Your task to perform on an android device: check android version Image 0: 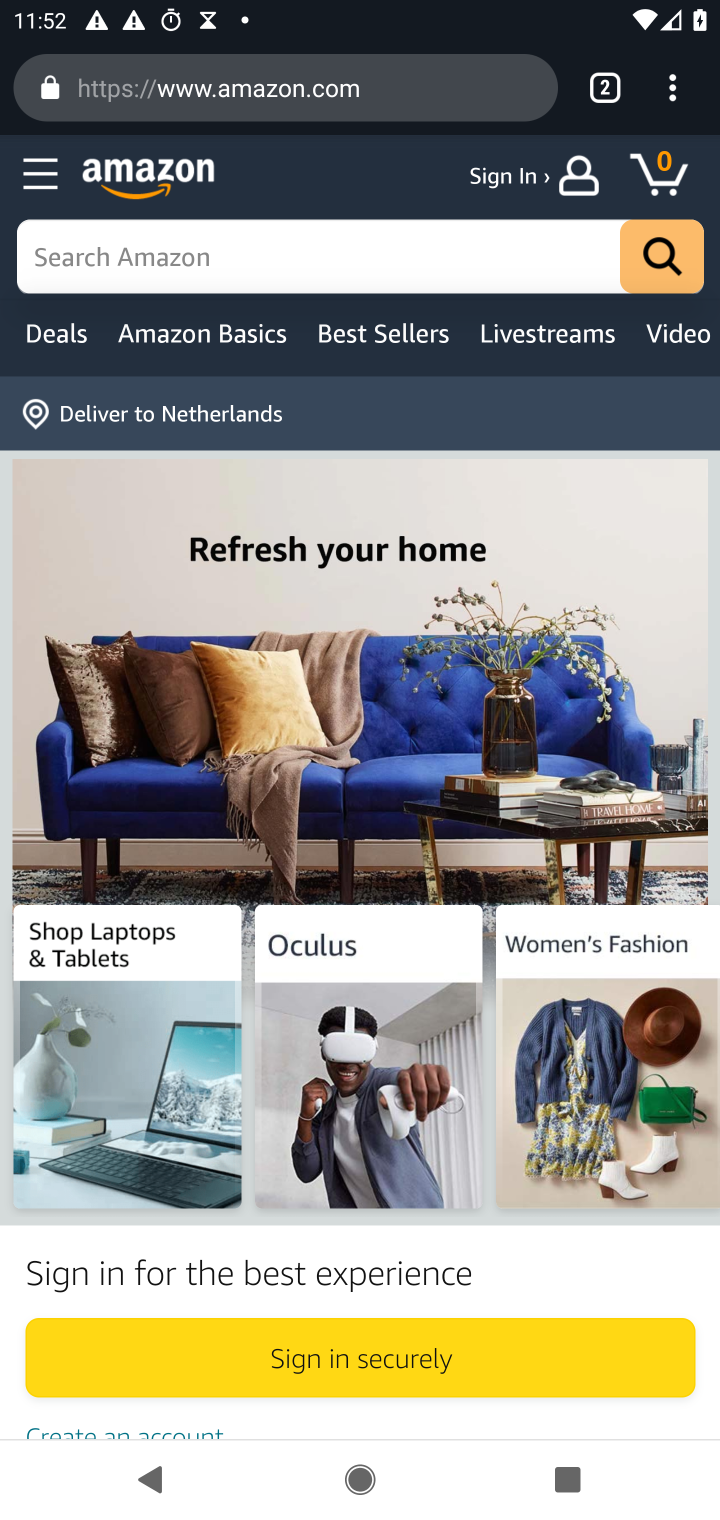
Step 0: press home button
Your task to perform on an android device: check android version Image 1: 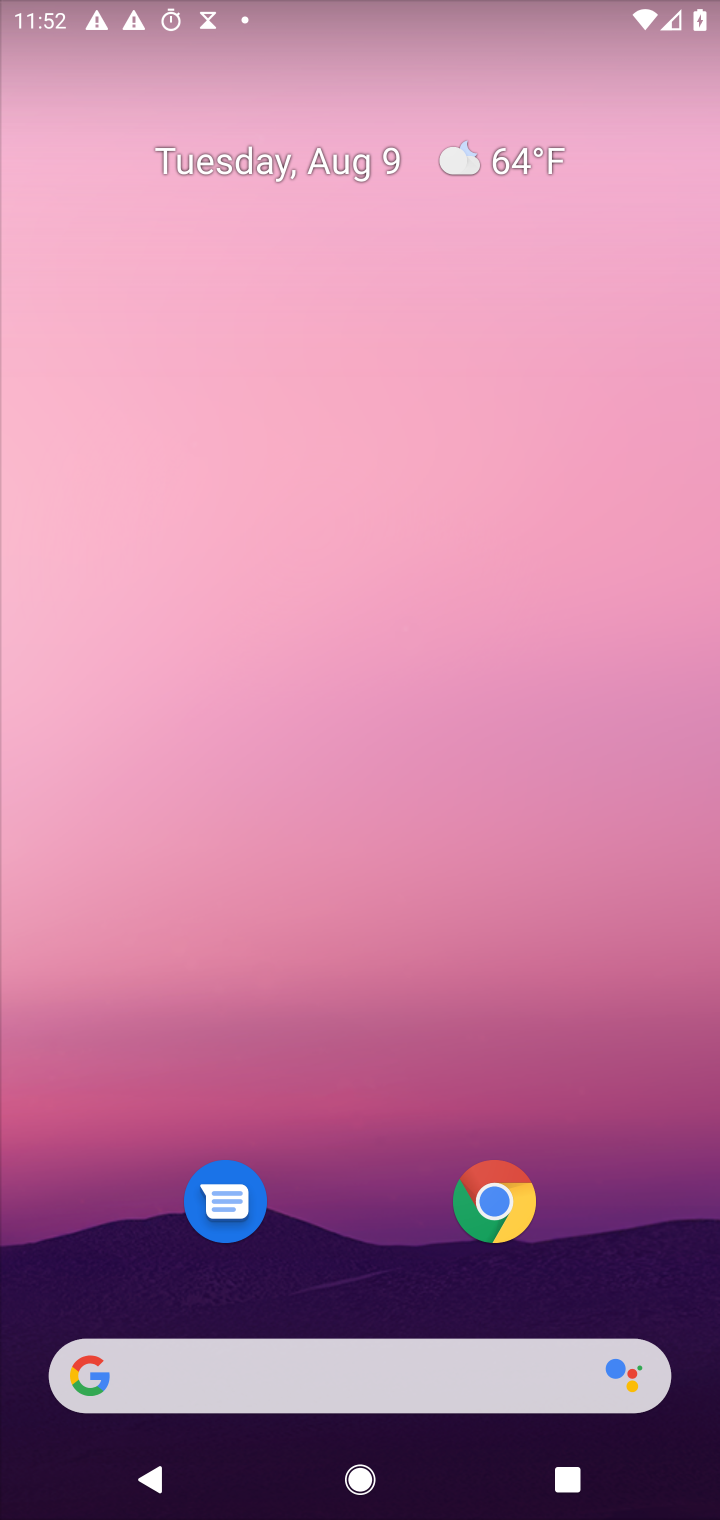
Step 1: drag from (382, 1229) to (362, 206)
Your task to perform on an android device: check android version Image 2: 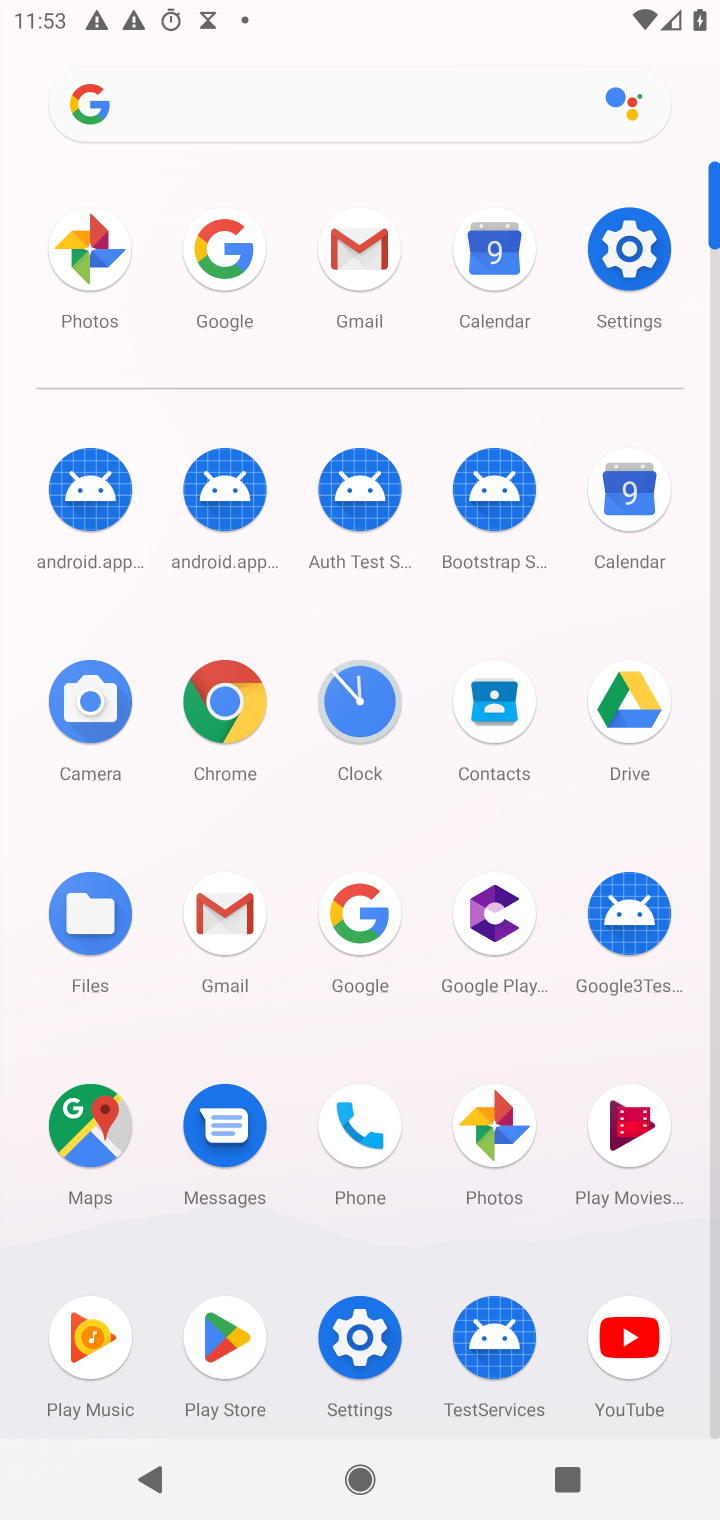
Step 2: click (631, 237)
Your task to perform on an android device: check android version Image 3: 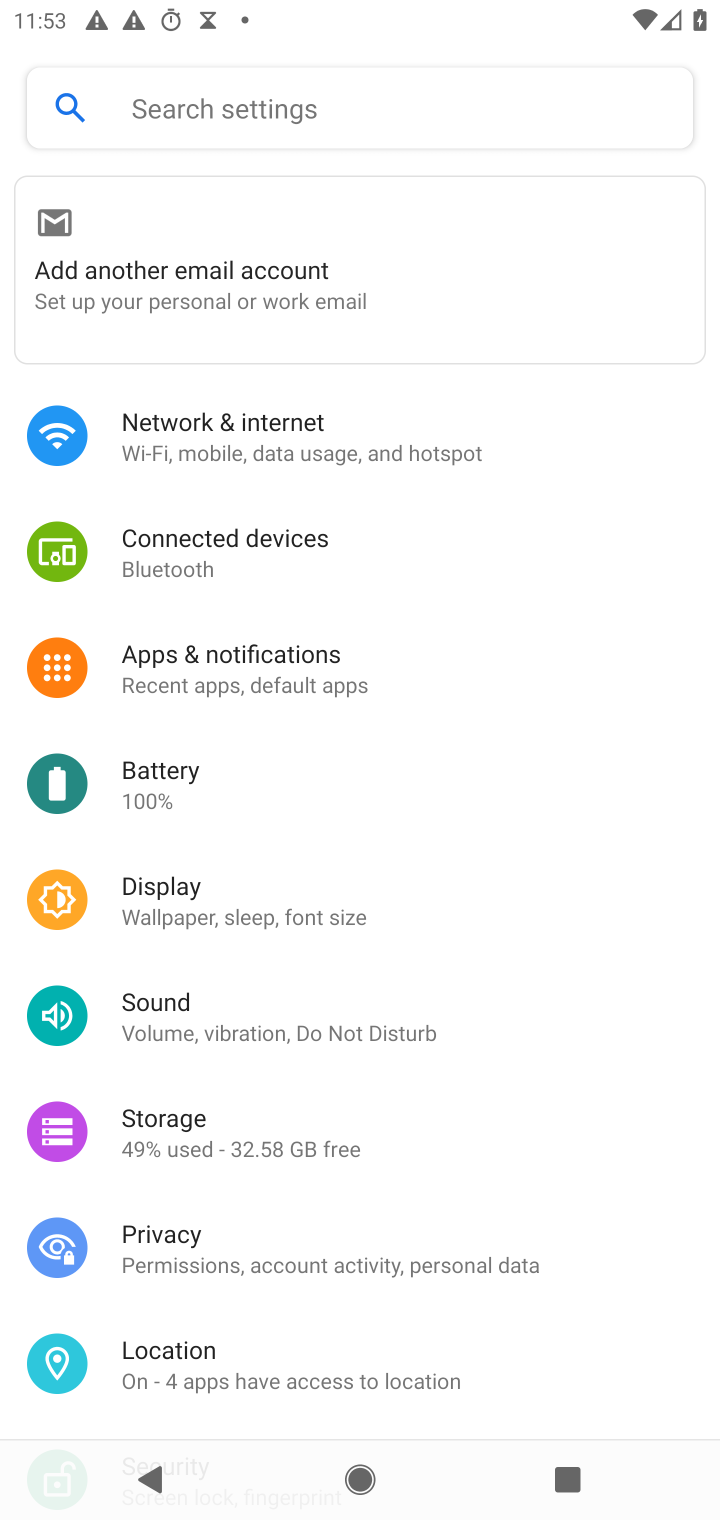
Step 3: drag from (397, 1210) to (411, 179)
Your task to perform on an android device: check android version Image 4: 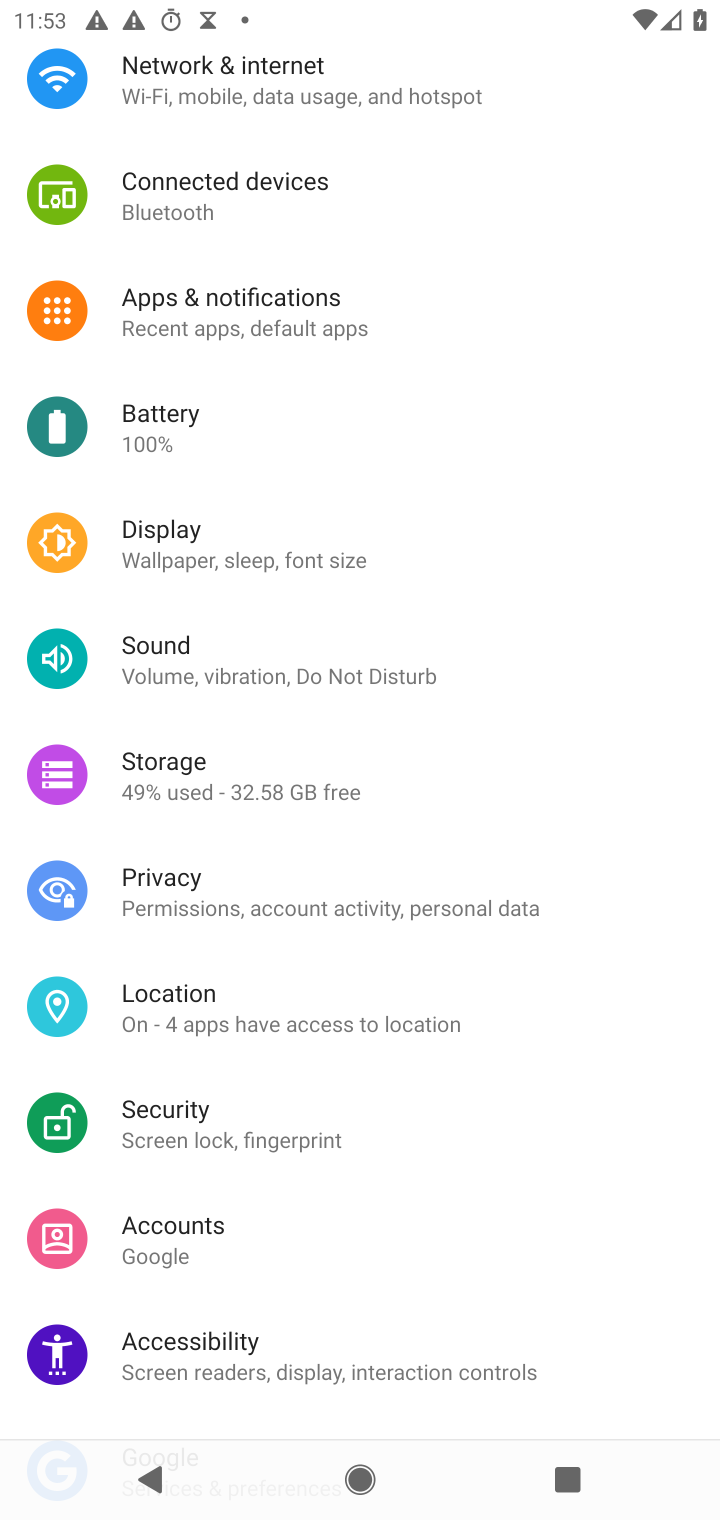
Step 4: drag from (290, 1293) to (432, 120)
Your task to perform on an android device: check android version Image 5: 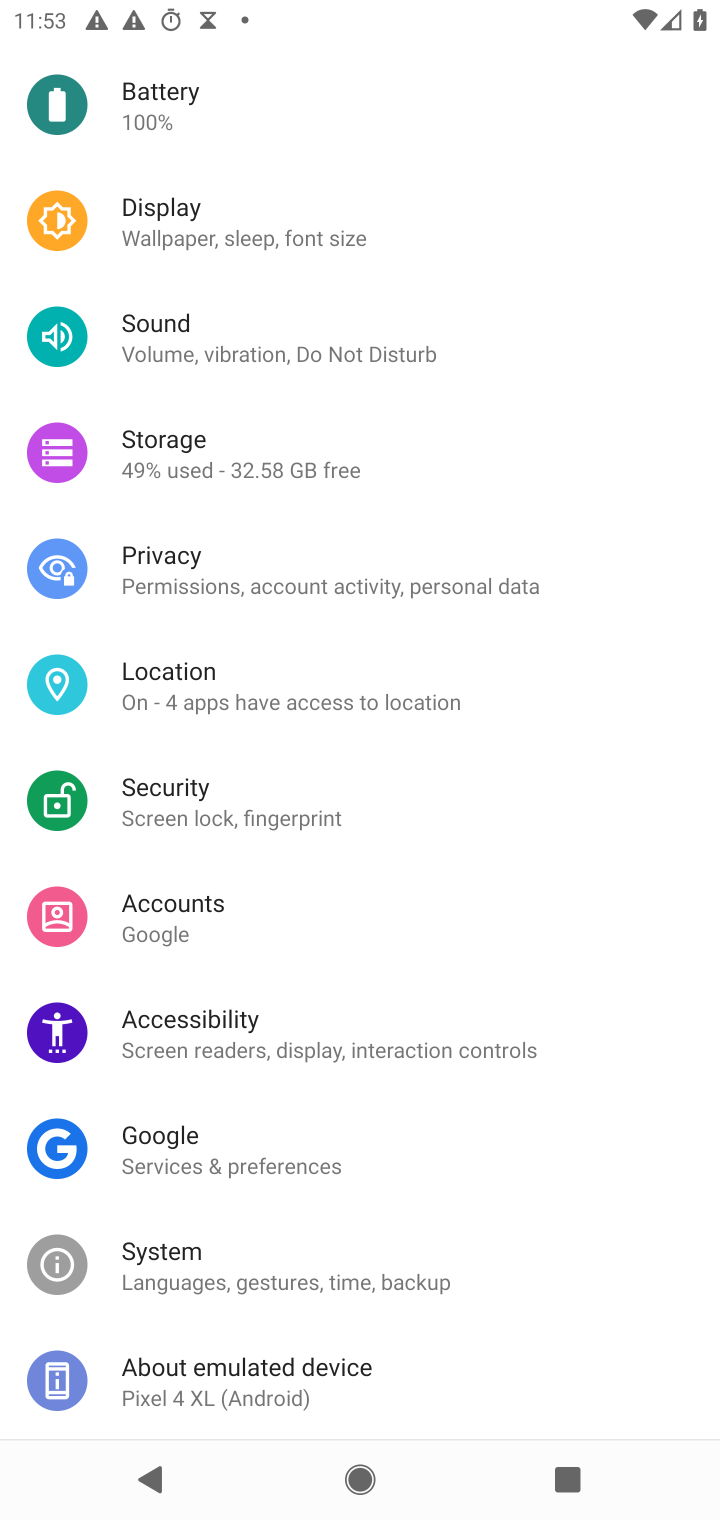
Step 5: click (242, 1387)
Your task to perform on an android device: check android version Image 6: 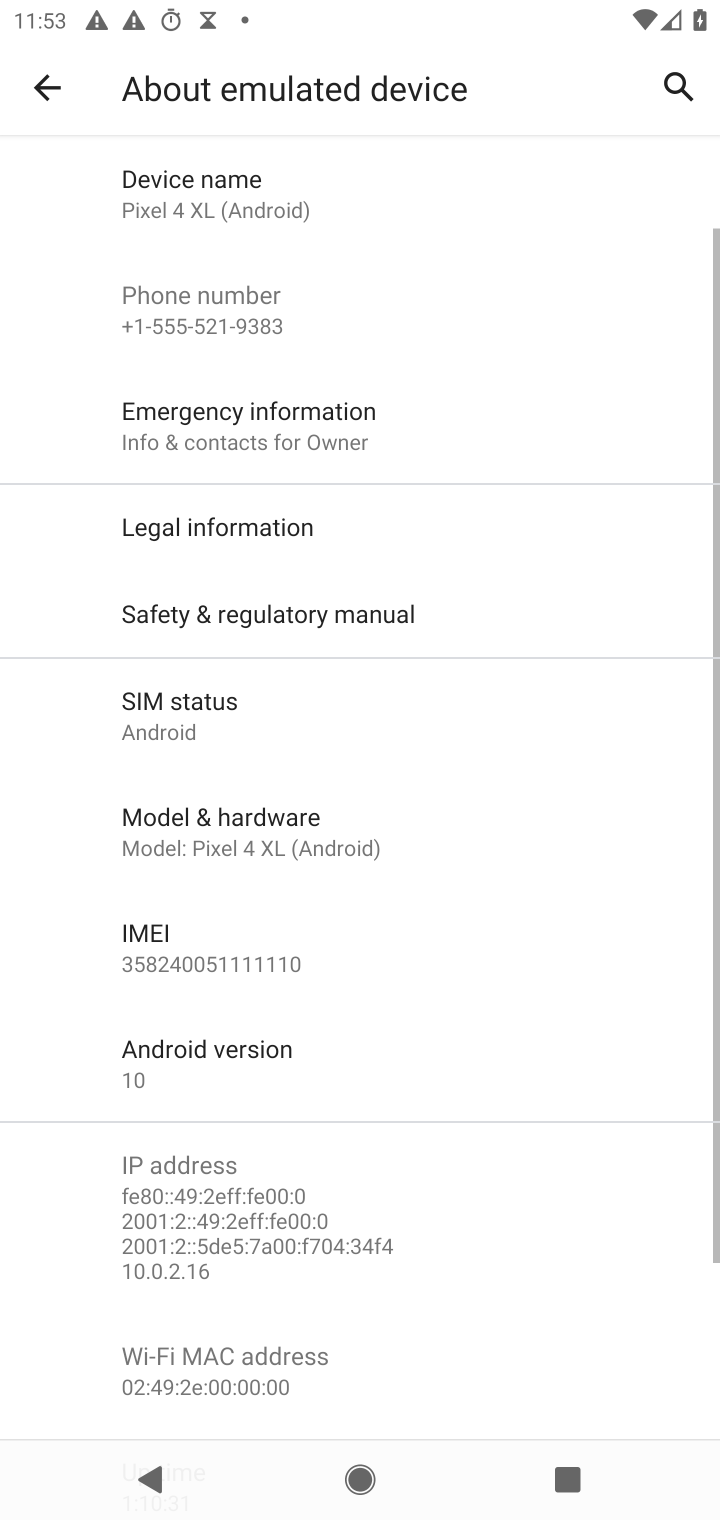
Step 6: click (166, 1079)
Your task to perform on an android device: check android version Image 7: 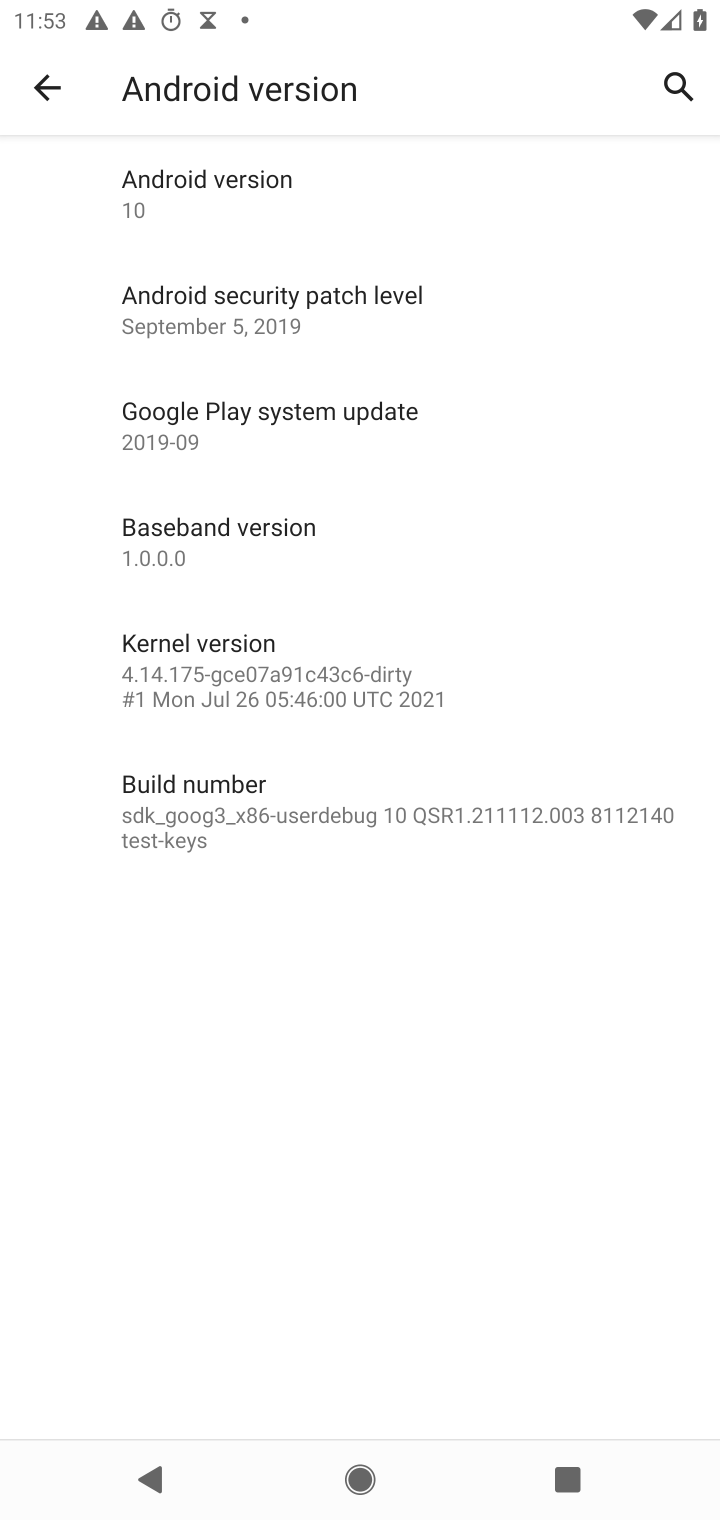
Step 7: task complete